Your task to perform on an android device: Go to ESPN.com Image 0: 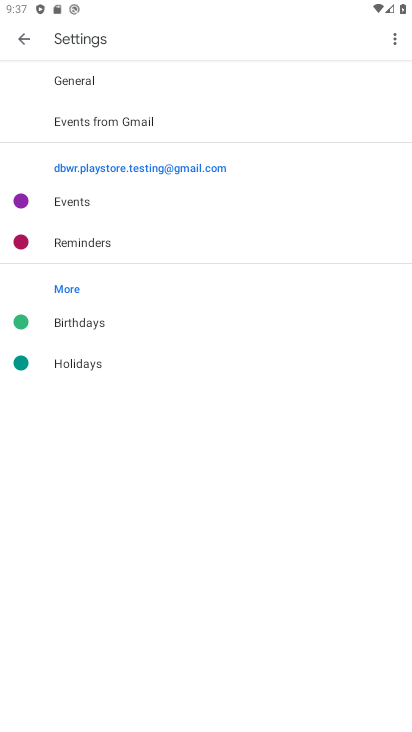
Step 0: press home button
Your task to perform on an android device: Go to ESPN.com Image 1: 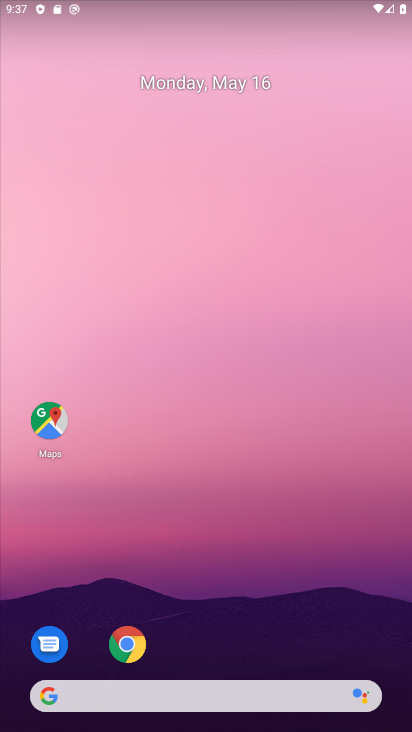
Step 1: click (129, 645)
Your task to perform on an android device: Go to ESPN.com Image 2: 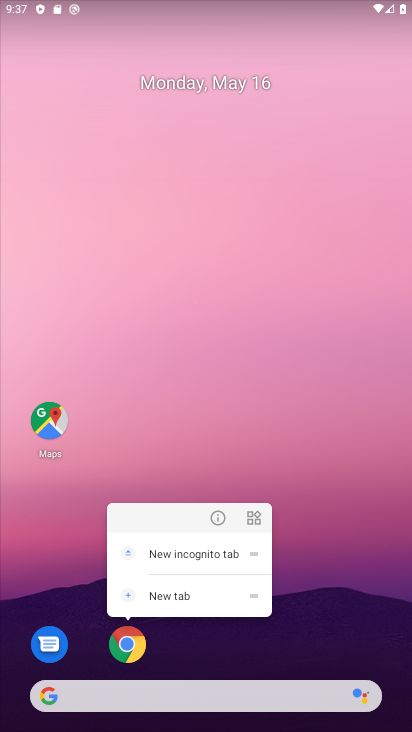
Step 2: click (128, 644)
Your task to perform on an android device: Go to ESPN.com Image 3: 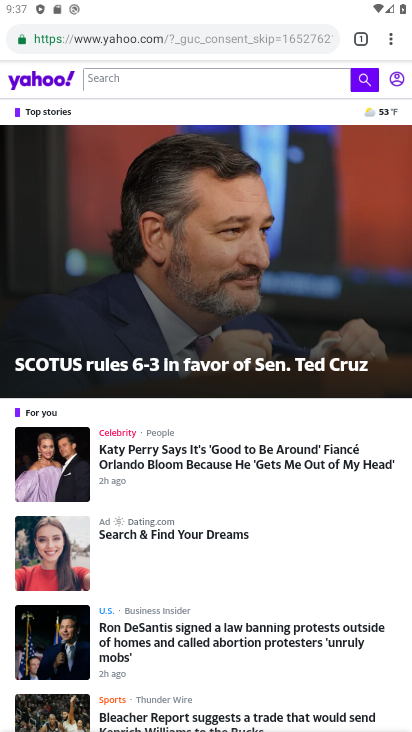
Step 3: click (362, 41)
Your task to perform on an android device: Go to ESPN.com Image 4: 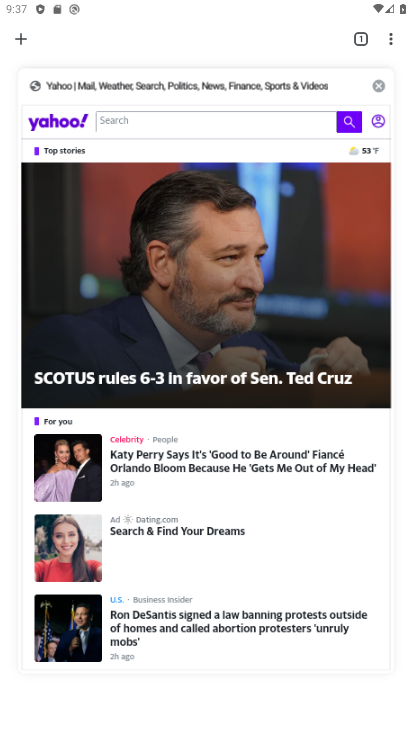
Step 4: click (376, 83)
Your task to perform on an android device: Go to ESPN.com Image 5: 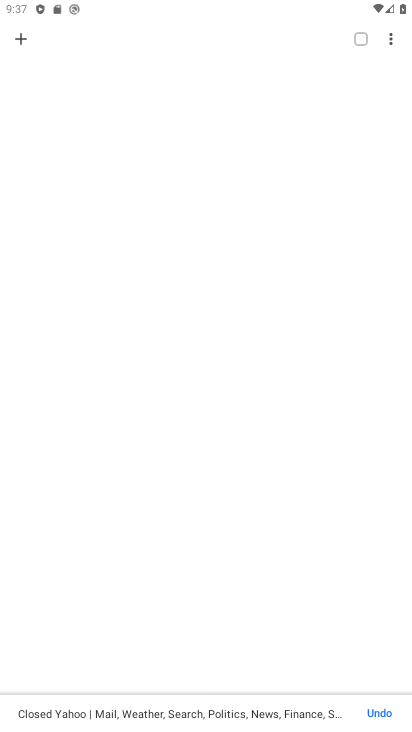
Step 5: click (15, 39)
Your task to perform on an android device: Go to ESPN.com Image 6: 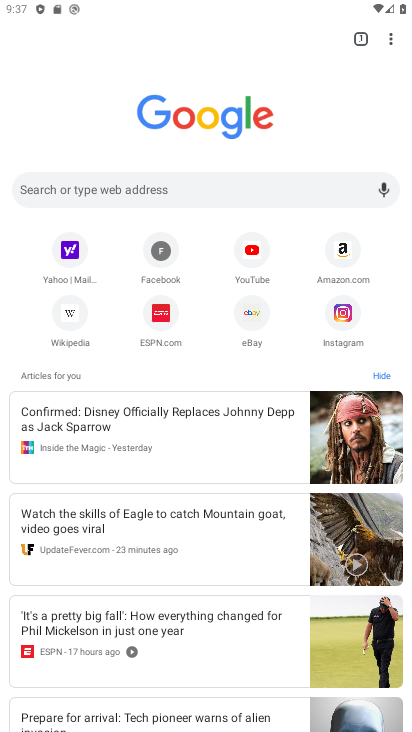
Step 6: click (252, 313)
Your task to perform on an android device: Go to ESPN.com Image 7: 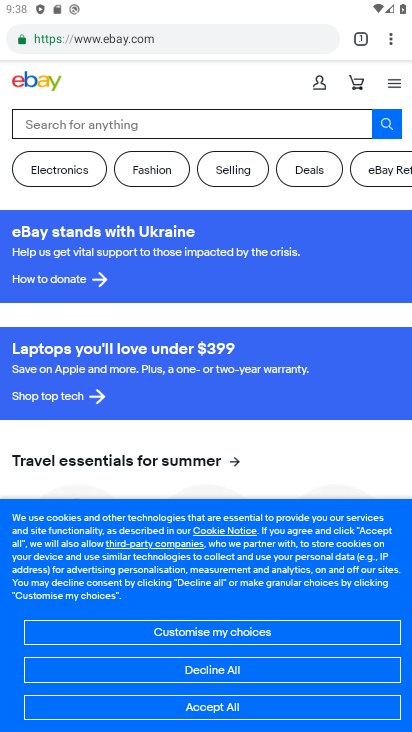
Step 7: task complete